Your task to perform on an android device: Go to ESPN.com Image 0: 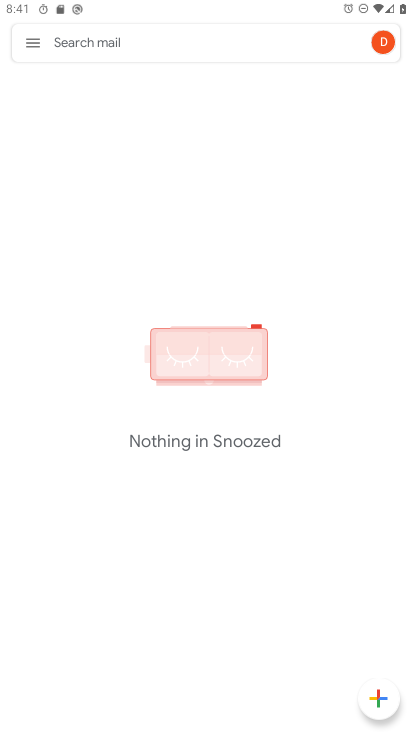
Step 0: press home button
Your task to perform on an android device: Go to ESPN.com Image 1: 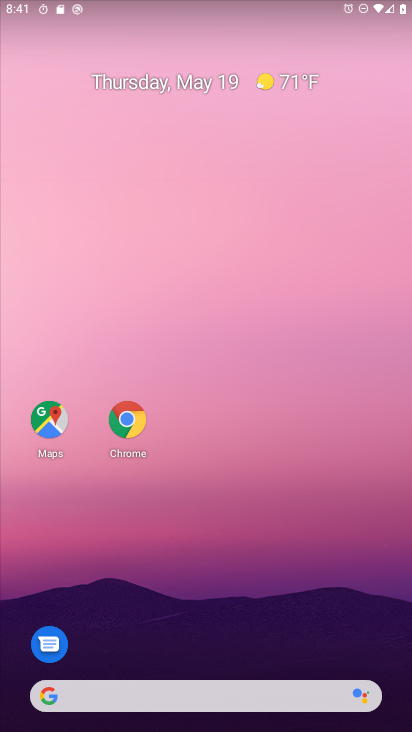
Step 1: drag from (167, 681) to (222, 264)
Your task to perform on an android device: Go to ESPN.com Image 2: 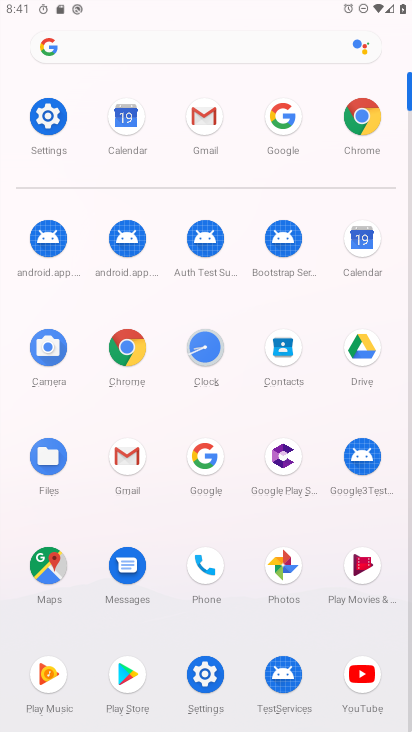
Step 2: click (286, 116)
Your task to perform on an android device: Go to ESPN.com Image 3: 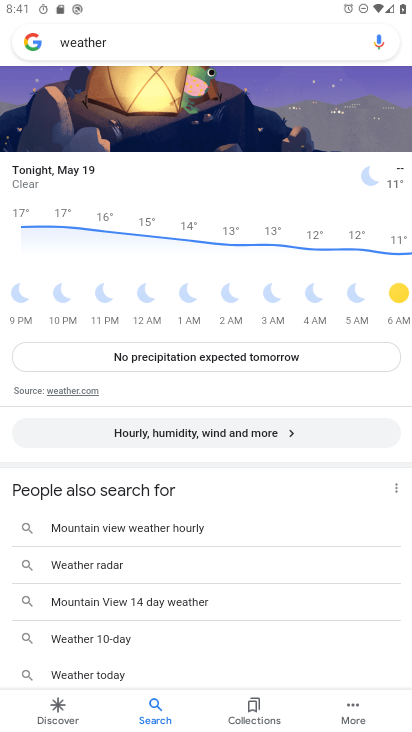
Step 3: click (137, 47)
Your task to perform on an android device: Go to ESPN.com Image 4: 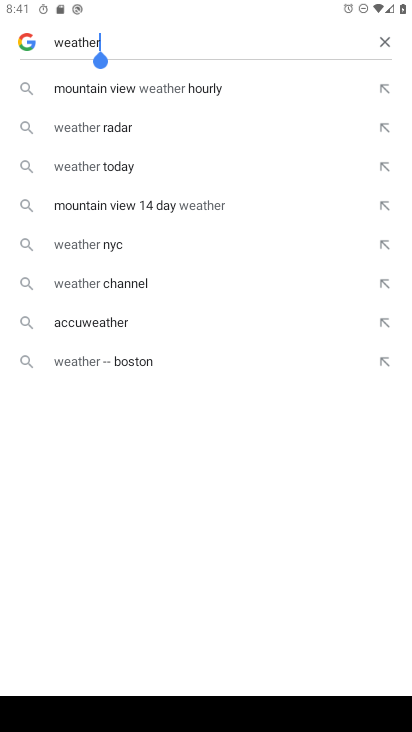
Step 4: click (384, 43)
Your task to perform on an android device: Go to ESPN.com Image 5: 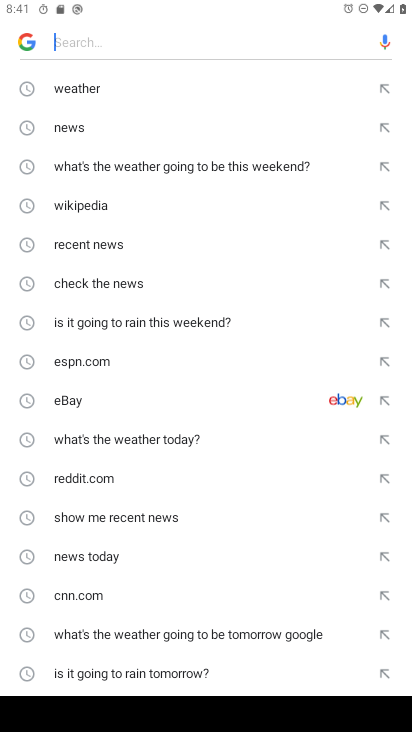
Step 5: click (82, 365)
Your task to perform on an android device: Go to ESPN.com Image 6: 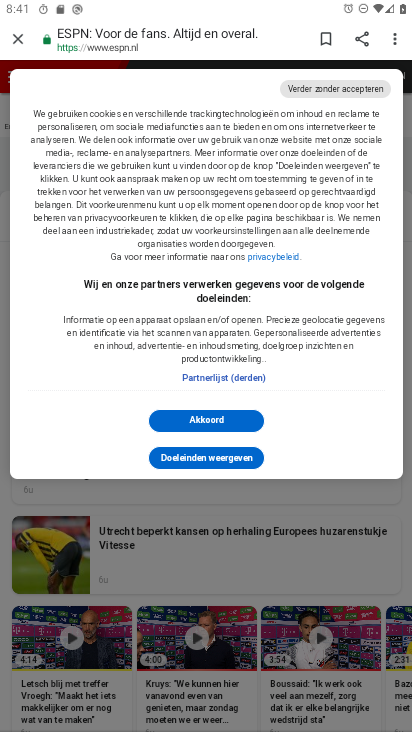
Step 6: task complete